Your task to perform on an android device: Go to privacy settings Image 0: 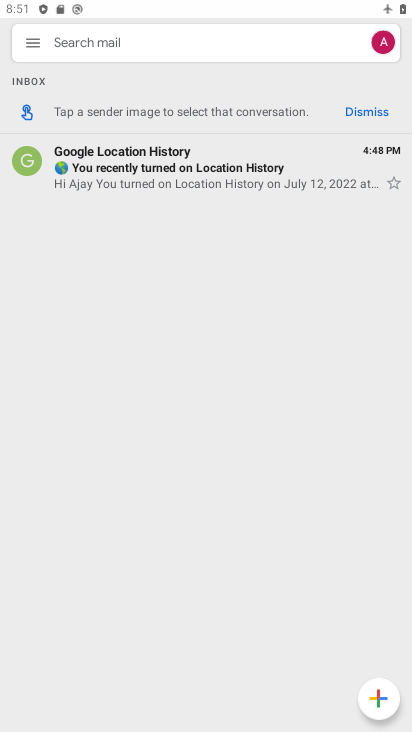
Step 0: press home button
Your task to perform on an android device: Go to privacy settings Image 1: 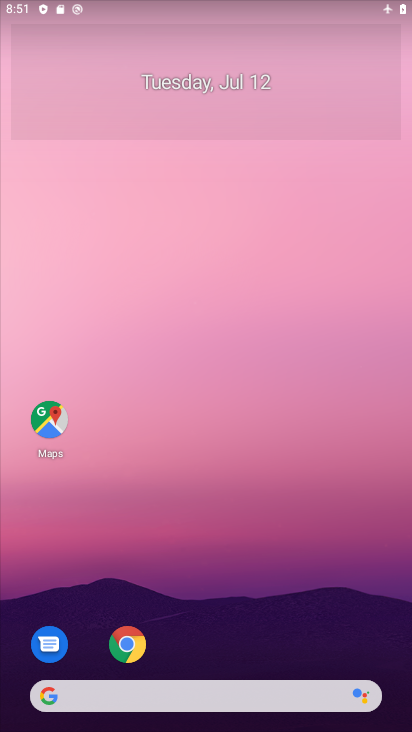
Step 1: drag from (193, 651) to (191, 225)
Your task to perform on an android device: Go to privacy settings Image 2: 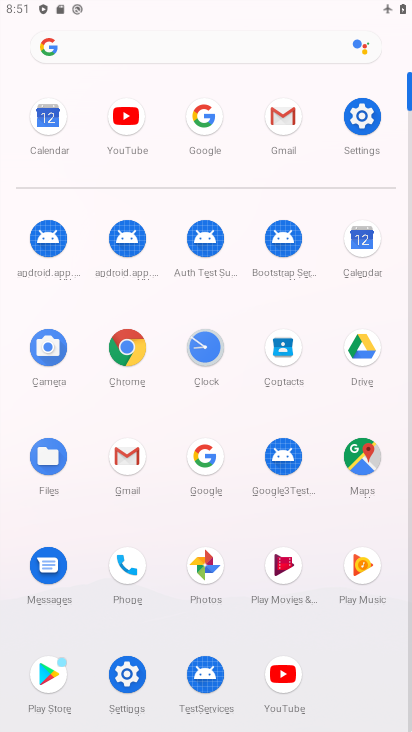
Step 2: click (362, 114)
Your task to perform on an android device: Go to privacy settings Image 3: 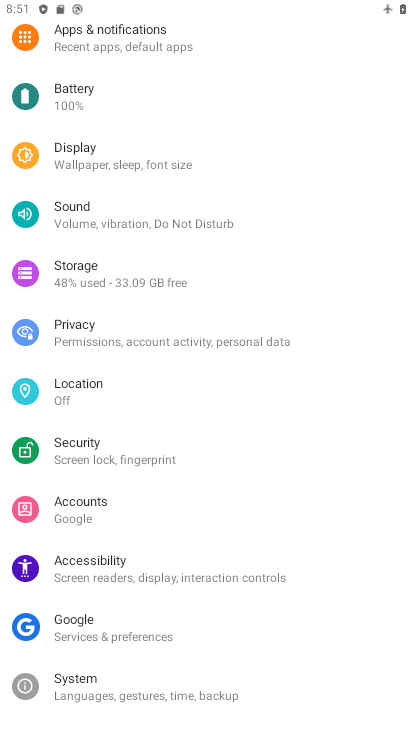
Step 3: click (150, 335)
Your task to perform on an android device: Go to privacy settings Image 4: 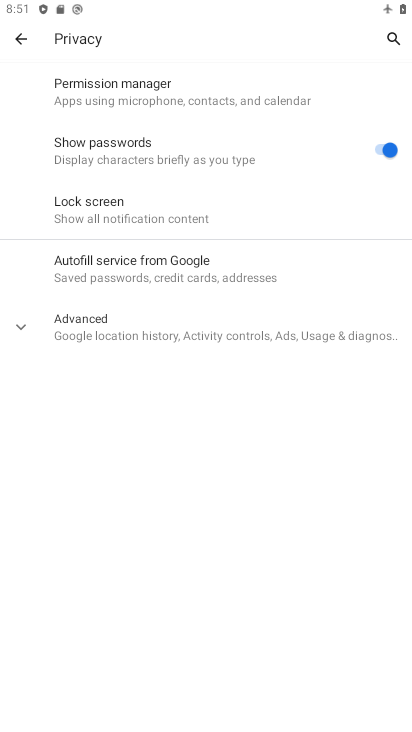
Step 4: task complete